Your task to perform on an android device: Open maps Image 0: 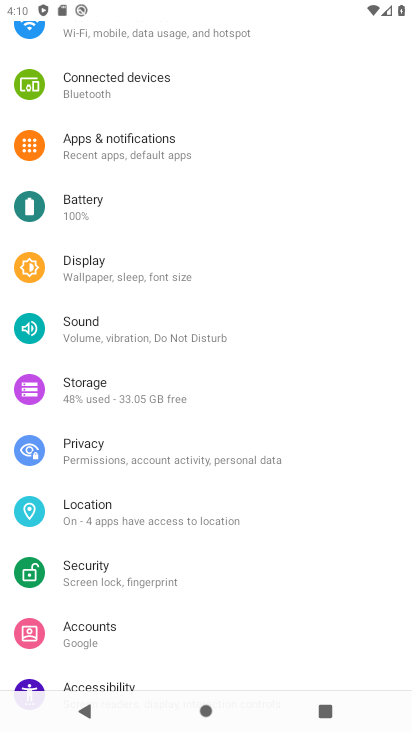
Step 0: press home button
Your task to perform on an android device: Open maps Image 1: 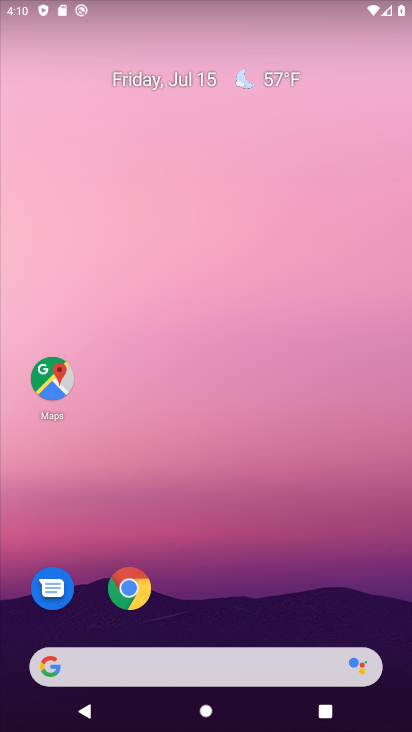
Step 1: click (52, 379)
Your task to perform on an android device: Open maps Image 2: 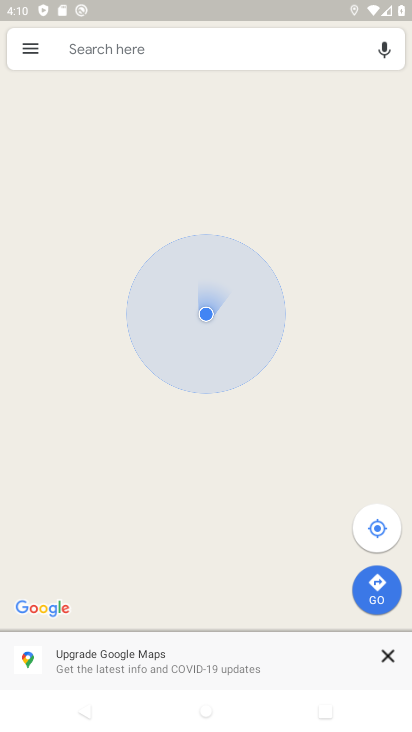
Step 2: task complete